Your task to perform on an android device: turn off airplane mode Image 0: 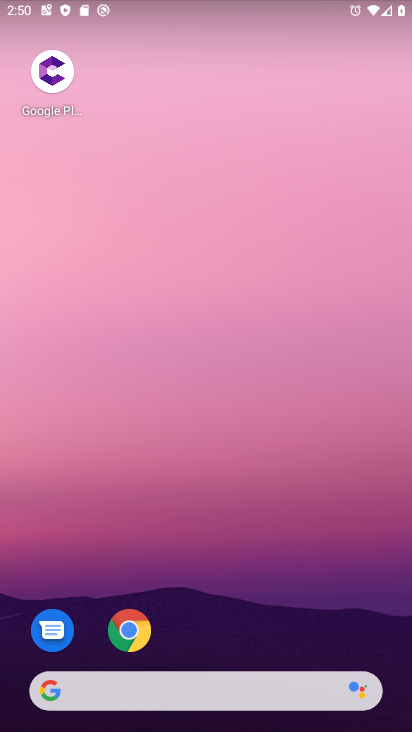
Step 0: drag from (156, 666) to (216, 270)
Your task to perform on an android device: turn off airplane mode Image 1: 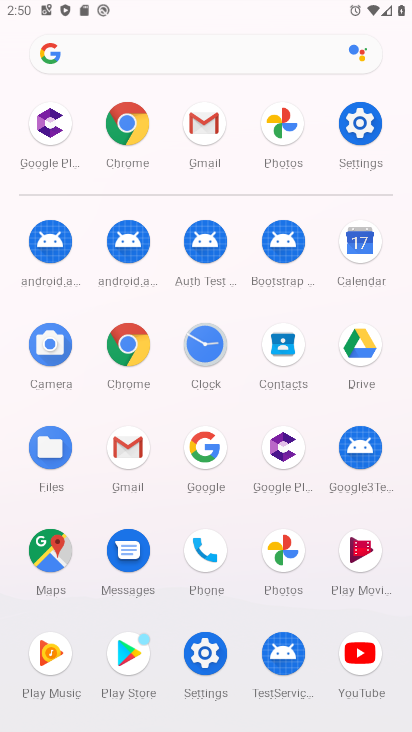
Step 1: click (368, 117)
Your task to perform on an android device: turn off airplane mode Image 2: 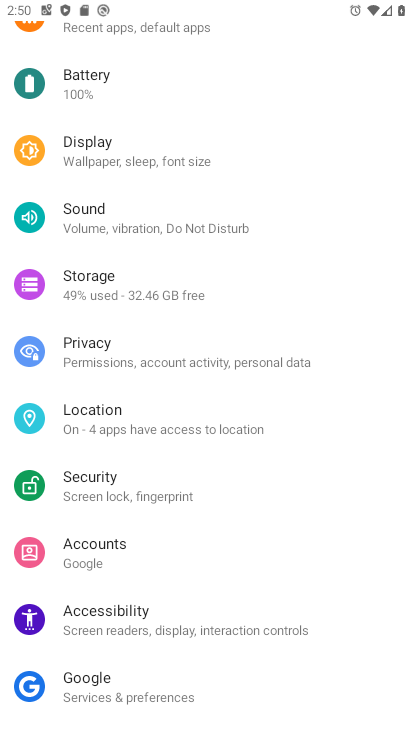
Step 2: drag from (130, 98) to (205, 430)
Your task to perform on an android device: turn off airplane mode Image 3: 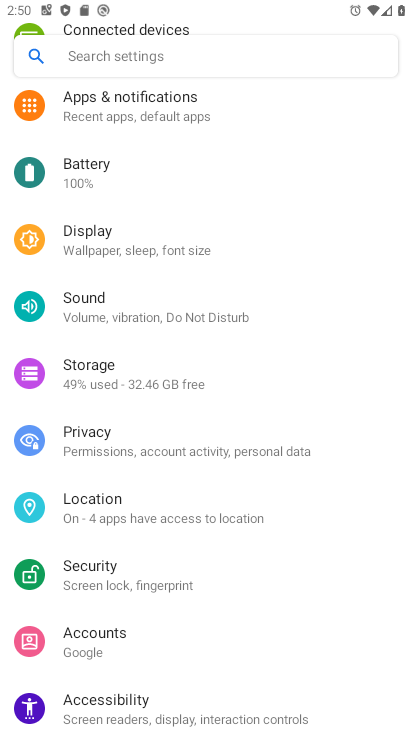
Step 3: drag from (158, 114) to (242, 476)
Your task to perform on an android device: turn off airplane mode Image 4: 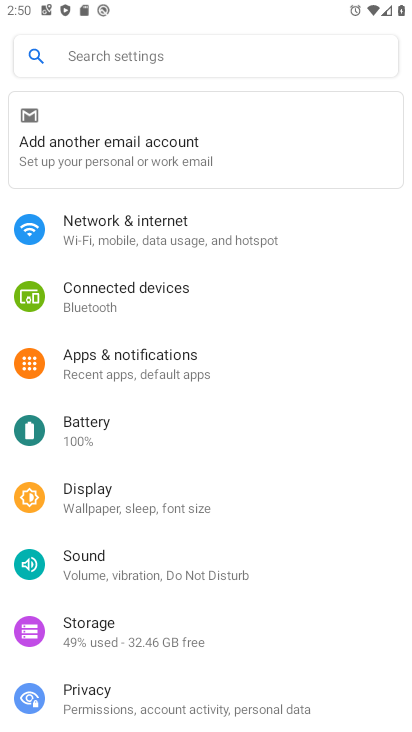
Step 4: click (136, 224)
Your task to perform on an android device: turn off airplane mode Image 5: 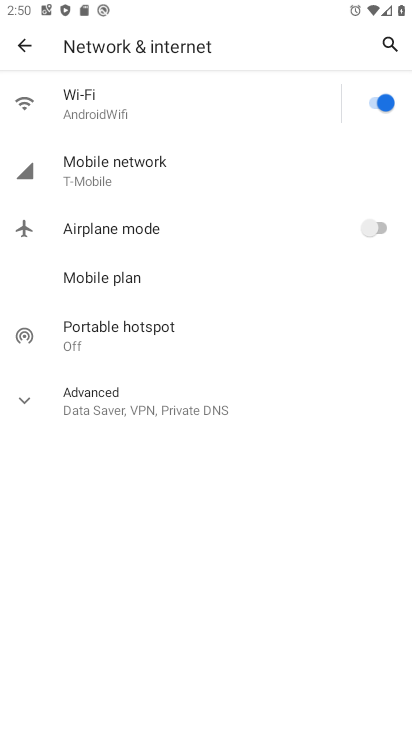
Step 5: task complete